Your task to perform on an android device: delete browsing data in the chrome app Image 0: 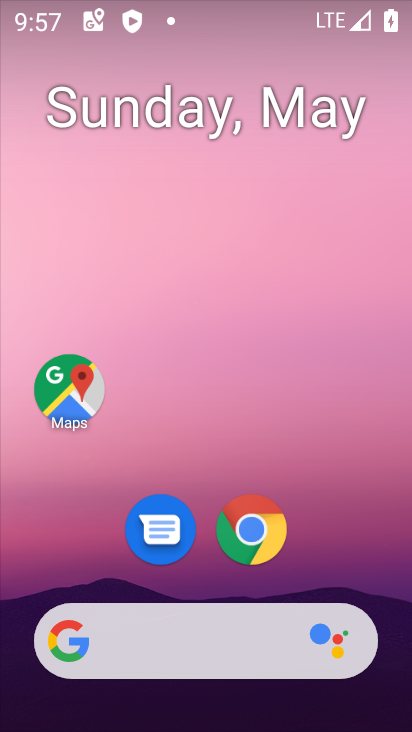
Step 0: click (257, 548)
Your task to perform on an android device: delete browsing data in the chrome app Image 1: 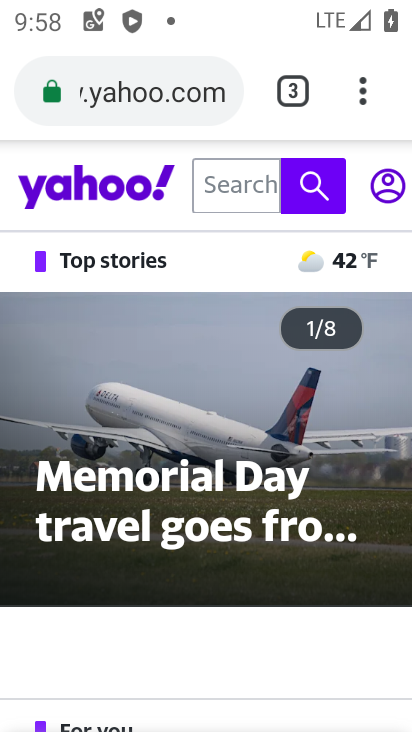
Step 1: task complete